Your task to perform on an android device: Open Youtube and go to the subscriptions tab Image 0: 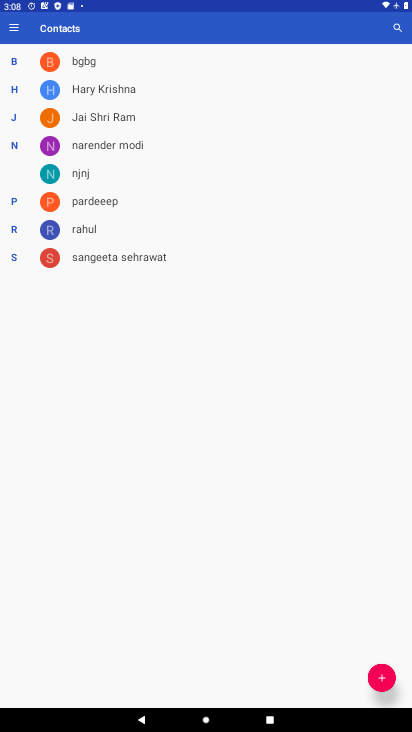
Step 0: press home button
Your task to perform on an android device: Open Youtube and go to the subscriptions tab Image 1: 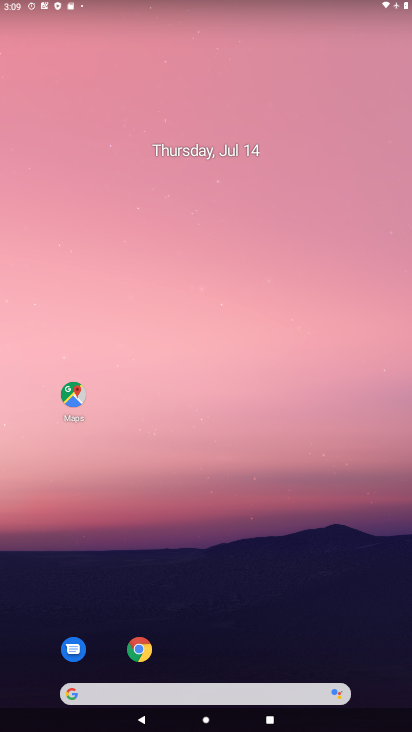
Step 1: drag from (214, 645) to (212, 15)
Your task to perform on an android device: Open Youtube and go to the subscriptions tab Image 2: 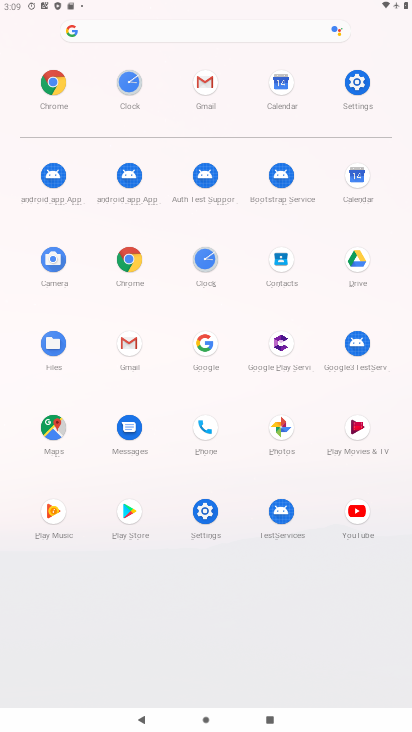
Step 2: click (355, 511)
Your task to perform on an android device: Open Youtube and go to the subscriptions tab Image 3: 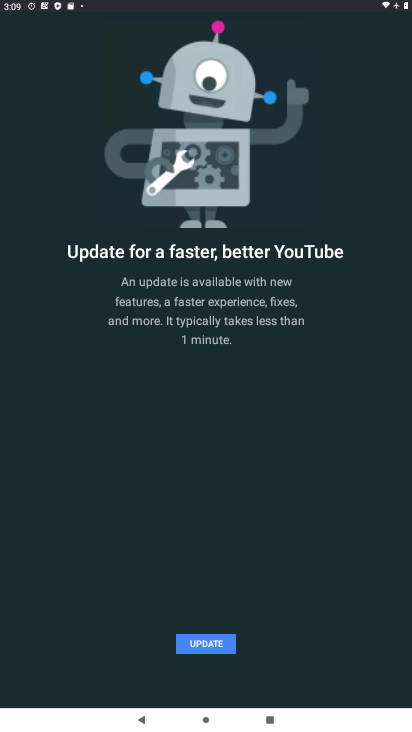
Step 3: click (215, 646)
Your task to perform on an android device: Open Youtube and go to the subscriptions tab Image 4: 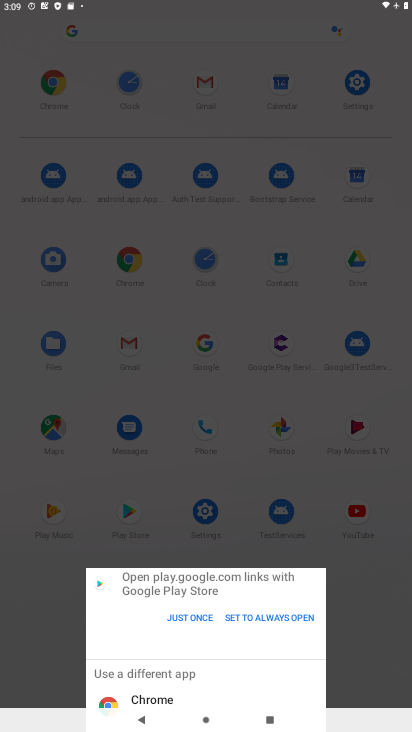
Step 4: click (180, 614)
Your task to perform on an android device: Open Youtube and go to the subscriptions tab Image 5: 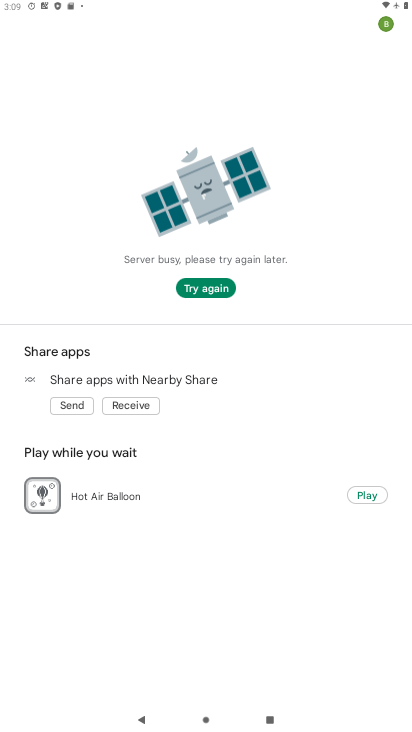
Step 5: click (203, 292)
Your task to perform on an android device: Open Youtube and go to the subscriptions tab Image 6: 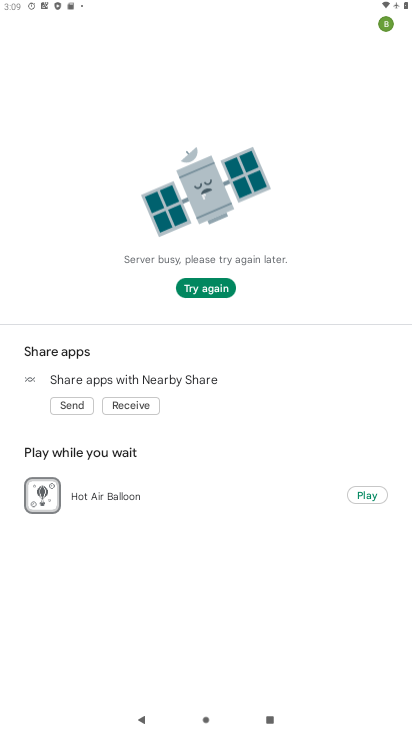
Step 6: click (229, 278)
Your task to perform on an android device: Open Youtube and go to the subscriptions tab Image 7: 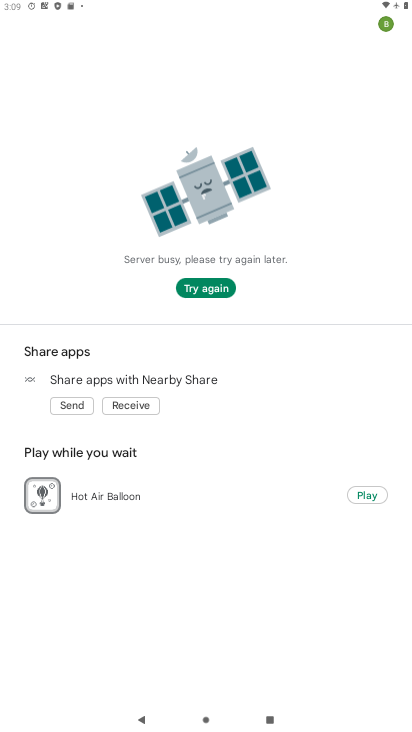
Step 7: click (206, 294)
Your task to perform on an android device: Open Youtube and go to the subscriptions tab Image 8: 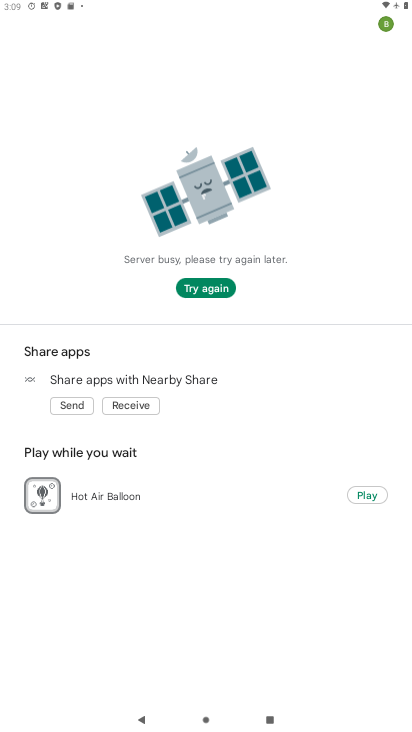
Step 8: click (205, 295)
Your task to perform on an android device: Open Youtube and go to the subscriptions tab Image 9: 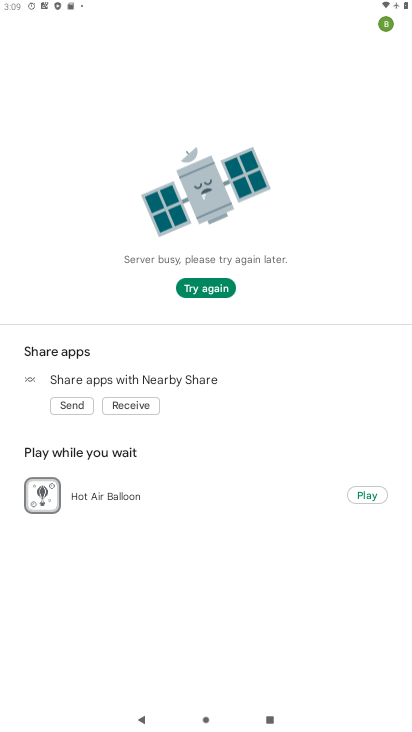
Step 9: click (205, 295)
Your task to perform on an android device: Open Youtube and go to the subscriptions tab Image 10: 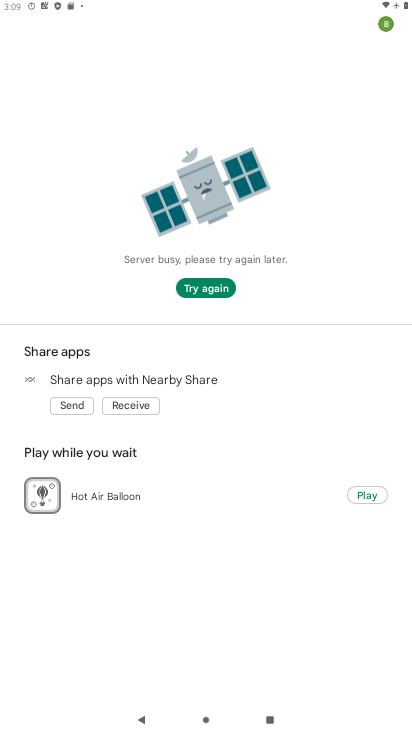
Step 10: task complete